Your task to perform on an android device: toggle pop-ups in chrome Image 0: 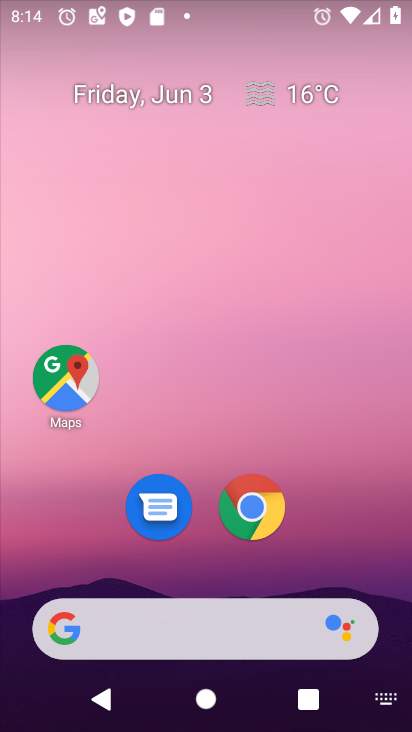
Step 0: click (248, 508)
Your task to perform on an android device: toggle pop-ups in chrome Image 1: 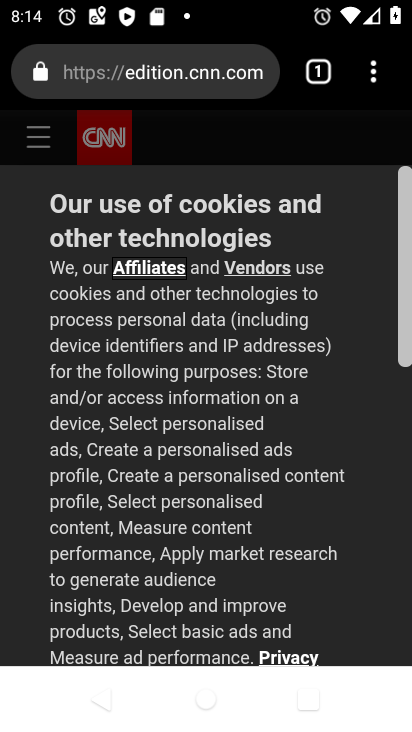
Step 1: click (374, 78)
Your task to perform on an android device: toggle pop-ups in chrome Image 2: 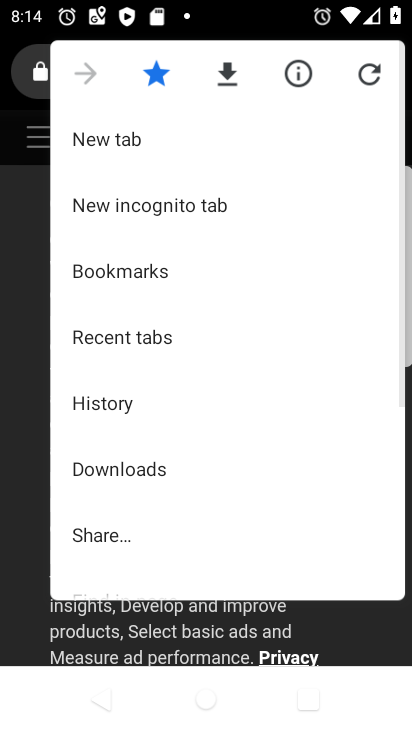
Step 2: drag from (231, 473) to (174, 95)
Your task to perform on an android device: toggle pop-ups in chrome Image 3: 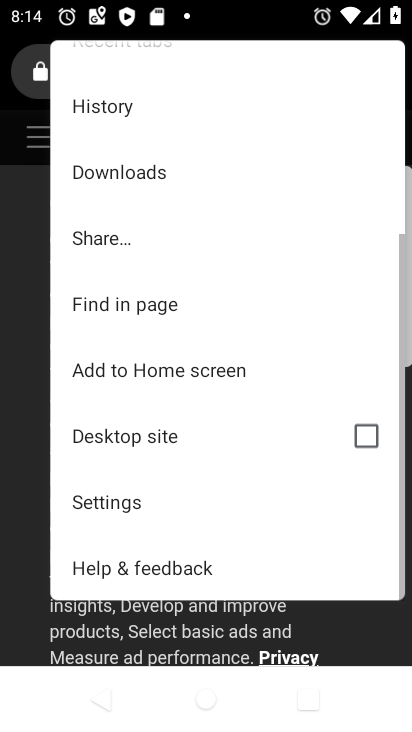
Step 3: click (176, 500)
Your task to perform on an android device: toggle pop-ups in chrome Image 4: 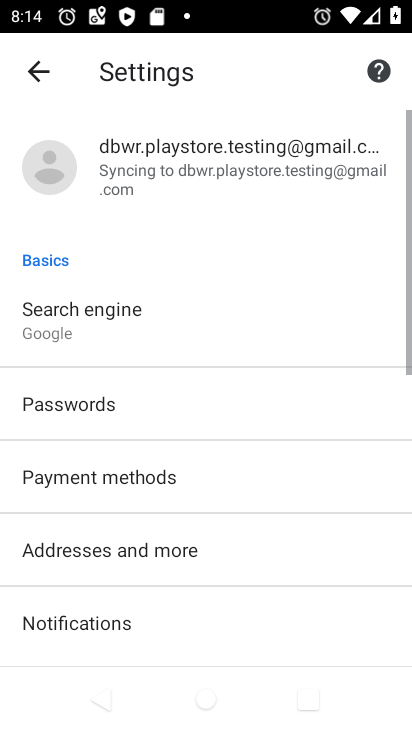
Step 4: drag from (188, 592) to (218, 192)
Your task to perform on an android device: toggle pop-ups in chrome Image 5: 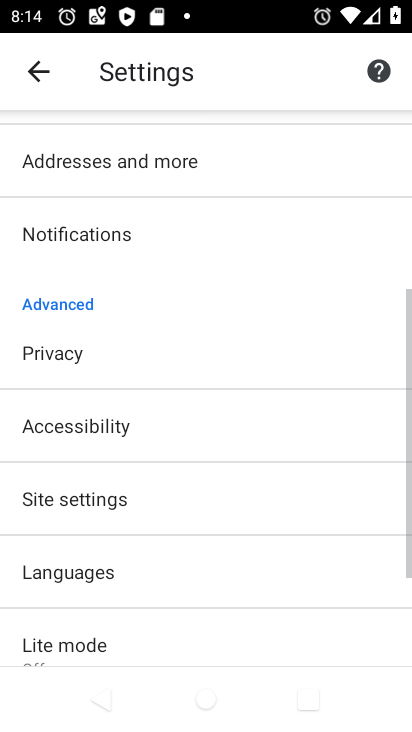
Step 5: drag from (204, 585) to (178, 181)
Your task to perform on an android device: toggle pop-ups in chrome Image 6: 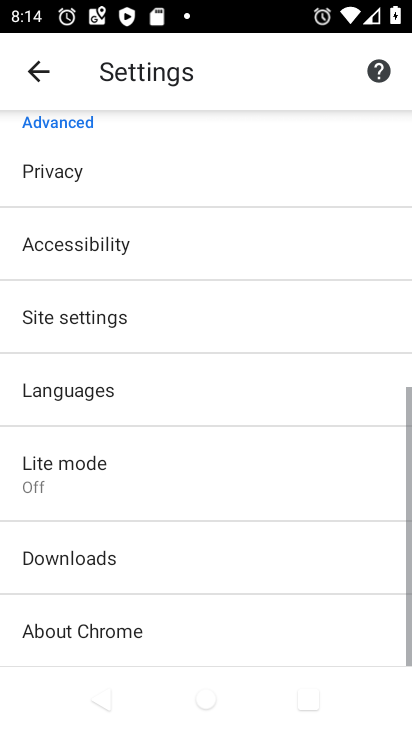
Step 6: click (168, 322)
Your task to perform on an android device: toggle pop-ups in chrome Image 7: 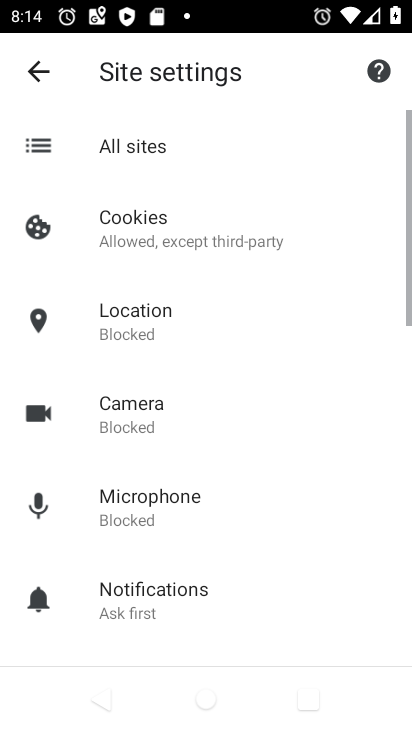
Step 7: drag from (237, 463) to (212, 108)
Your task to perform on an android device: toggle pop-ups in chrome Image 8: 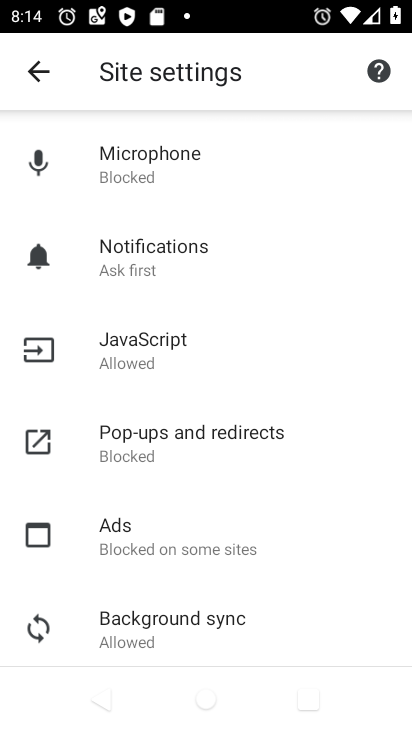
Step 8: click (174, 445)
Your task to perform on an android device: toggle pop-ups in chrome Image 9: 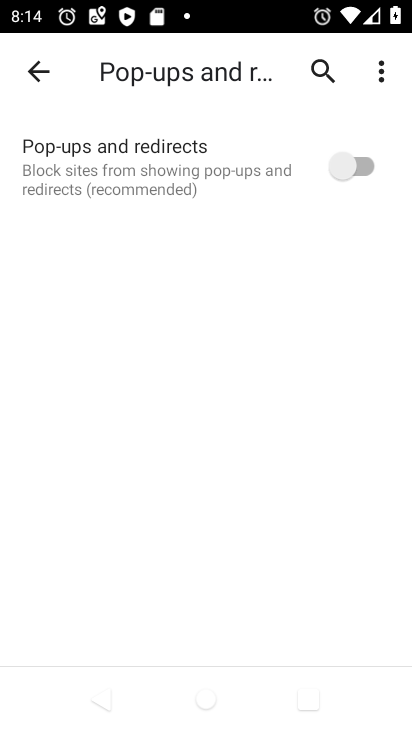
Step 9: click (361, 162)
Your task to perform on an android device: toggle pop-ups in chrome Image 10: 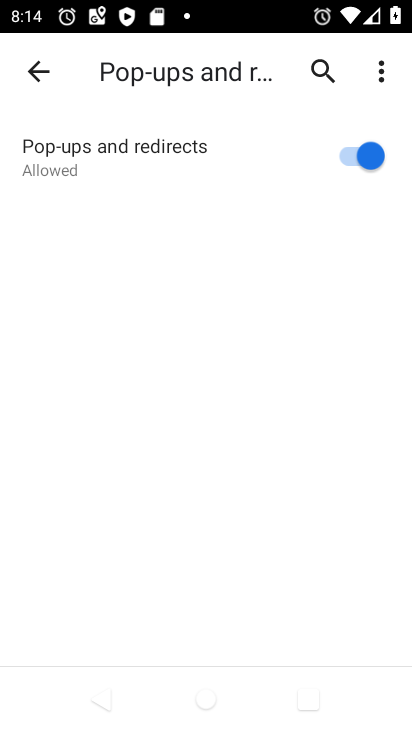
Step 10: task complete